Your task to perform on an android device: move a message to another label in the gmail app Image 0: 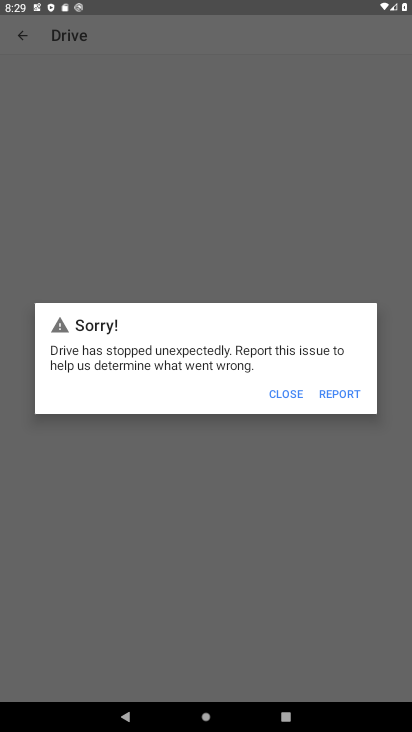
Step 0: click (297, 392)
Your task to perform on an android device: move a message to another label in the gmail app Image 1: 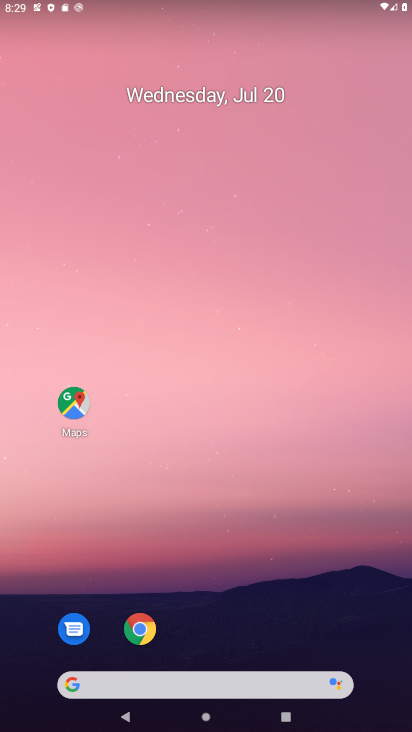
Step 1: drag from (297, 604) to (202, 173)
Your task to perform on an android device: move a message to another label in the gmail app Image 2: 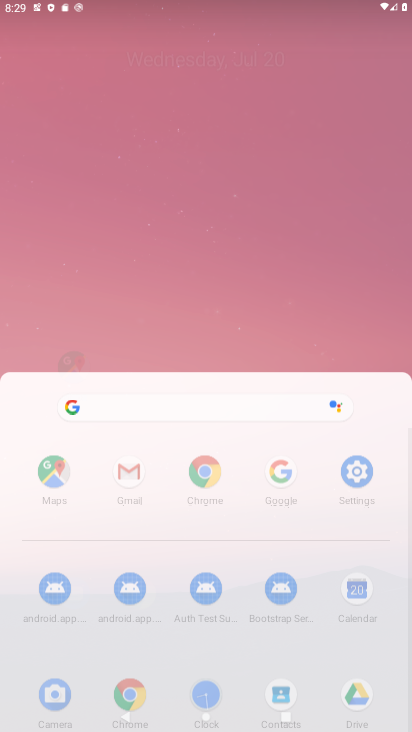
Step 2: drag from (228, 426) to (245, 85)
Your task to perform on an android device: move a message to another label in the gmail app Image 3: 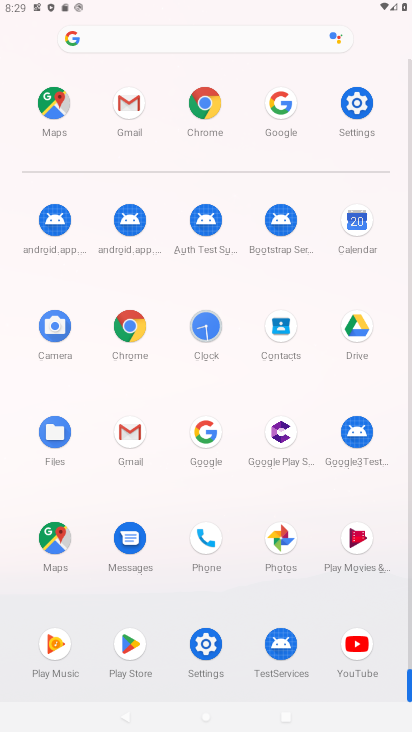
Step 3: click (127, 426)
Your task to perform on an android device: move a message to another label in the gmail app Image 4: 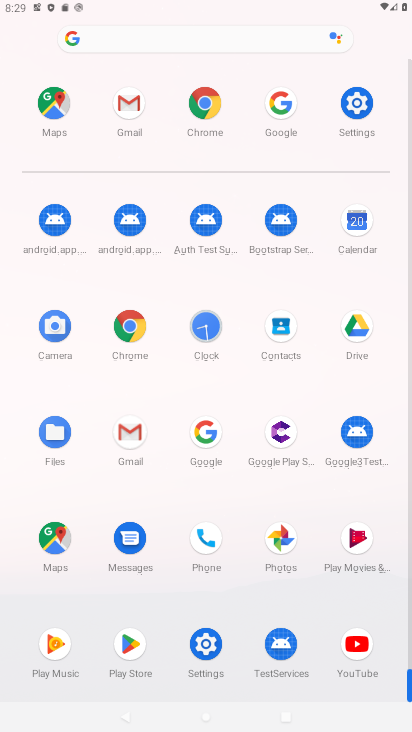
Step 4: click (139, 418)
Your task to perform on an android device: move a message to another label in the gmail app Image 5: 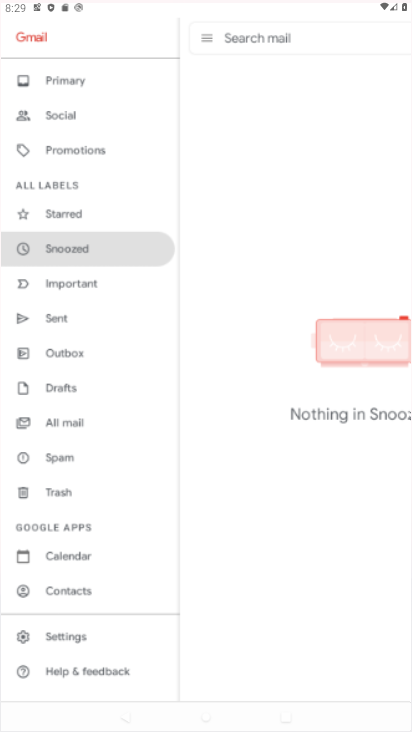
Step 5: click (138, 424)
Your task to perform on an android device: move a message to another label in the gmail app Image 6: 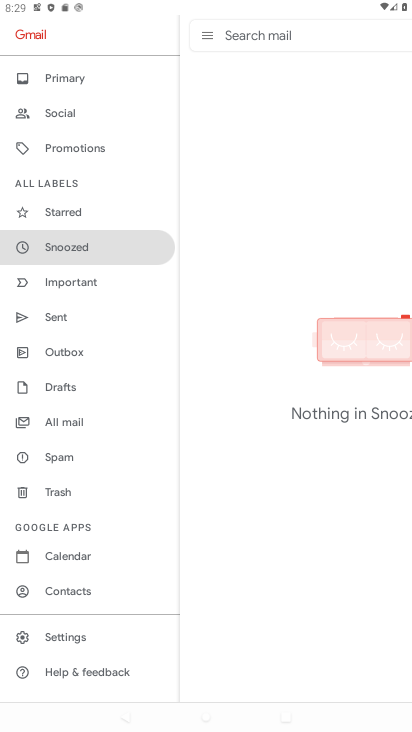
Step 6: click (138, 424)
Your task to perform on an android device: move a message to another label in the gmail app Image 7: 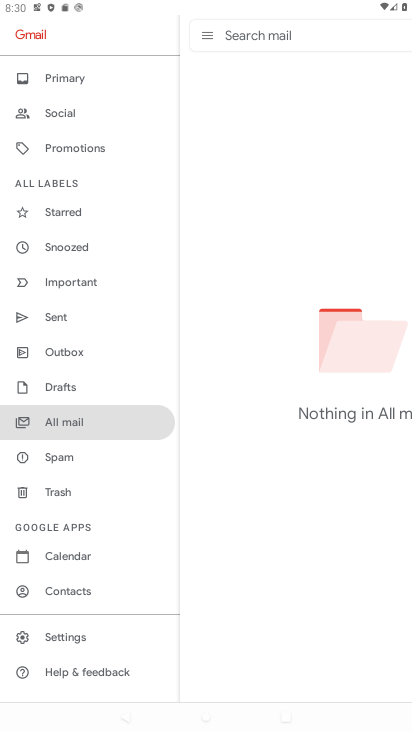
Step 7: click (80, 426)
Your task to perform on an android device: move a message to another label in the gmail app Image 8: 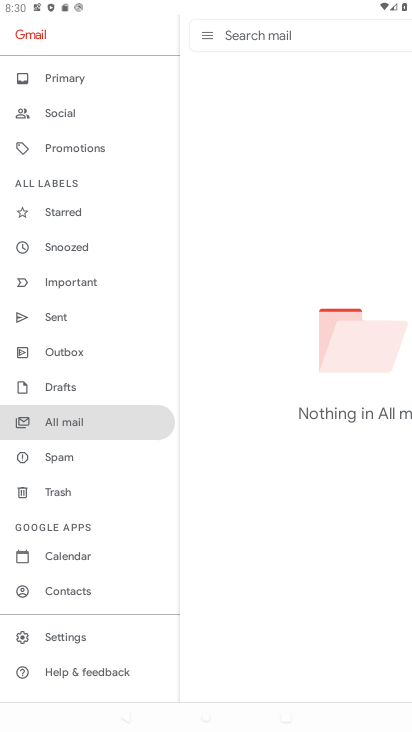
Step 8: click (81, 427)
Your task to perform on an android device: move a message to another label in the gmail app Image 9: 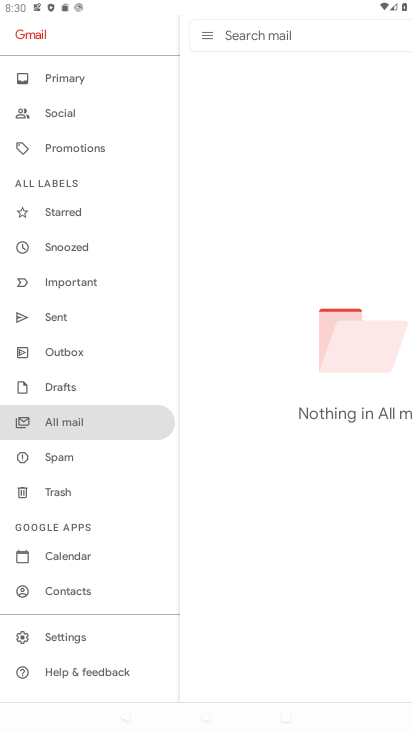
Step 9: click (83, 425)
Your task to perform on an android device: move a message to another label in the gmail app Image 10: 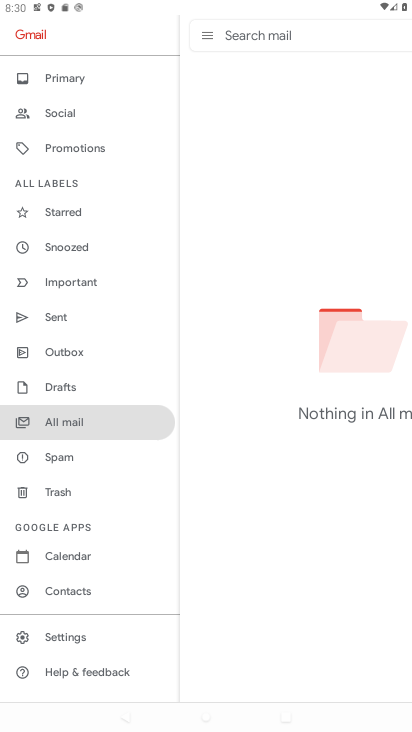
Step 10: click (83, 425)
Your task to perform on an android device: move a message to another label in the gmail app Image 11: 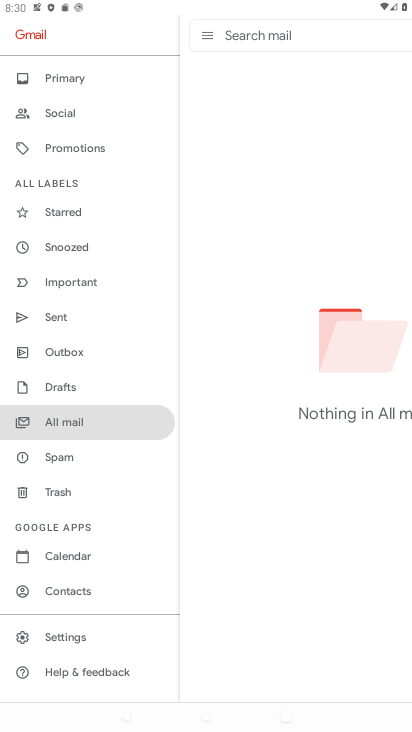
Step 11: task complete